Your task to perform on an android device: What's the weather today? Image 0: 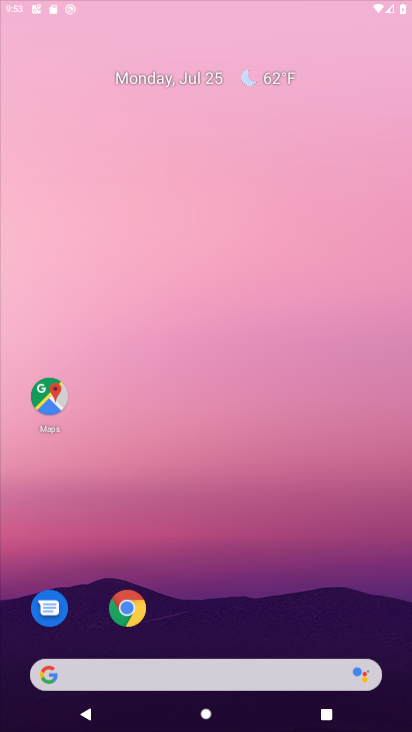
Step 0: press home button
Your task to perform on an android device: What's the weather today? Image 1: 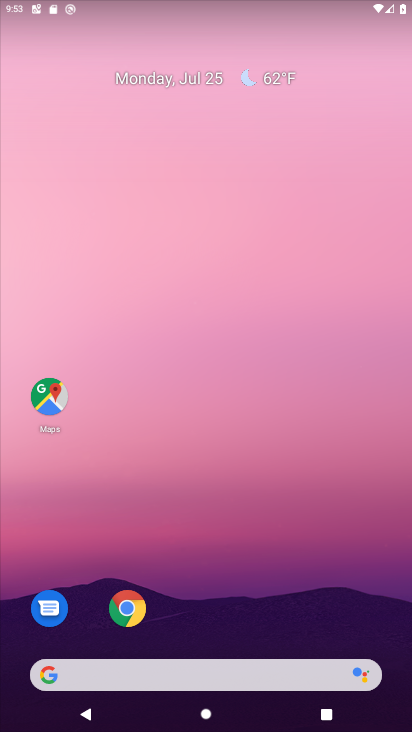
Step 1: drag from (199, 636) to (244, 3)
Your task to perform on an android device: What's the weather today? Image 2: 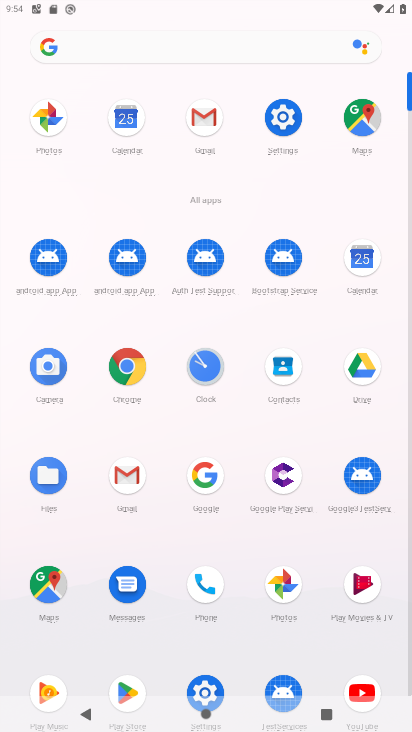
Step 2: click (142, 46)
Your task to perform on an android device: What's the weather today? Image 3: 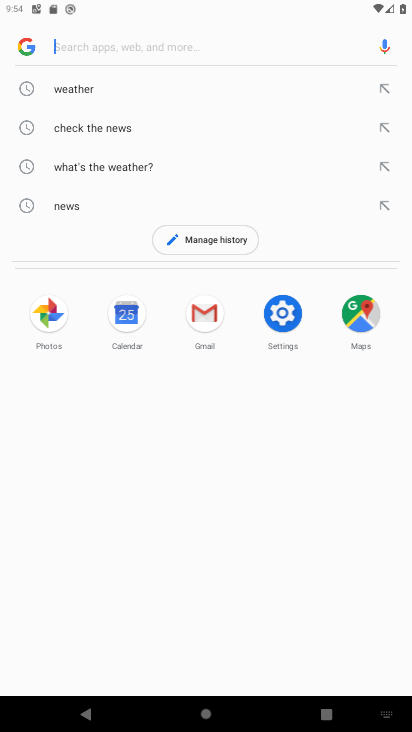
Step 3: click (96, 82)
Your task to perform on an android device: What's the weather today? Image 4: 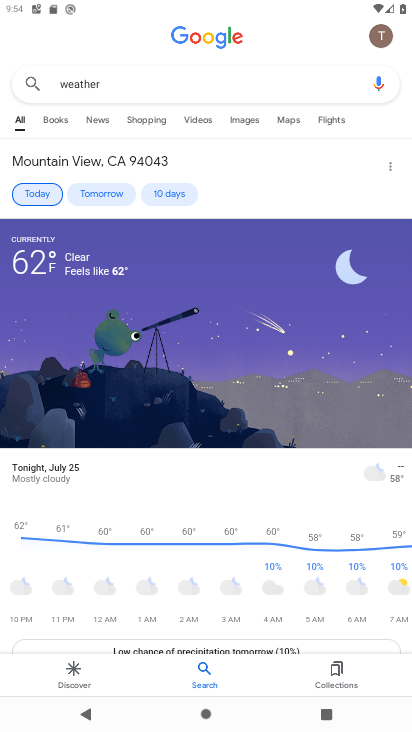
Step 4: task complete